Your task to perform on an android device: Open Google Chrome Image 0: 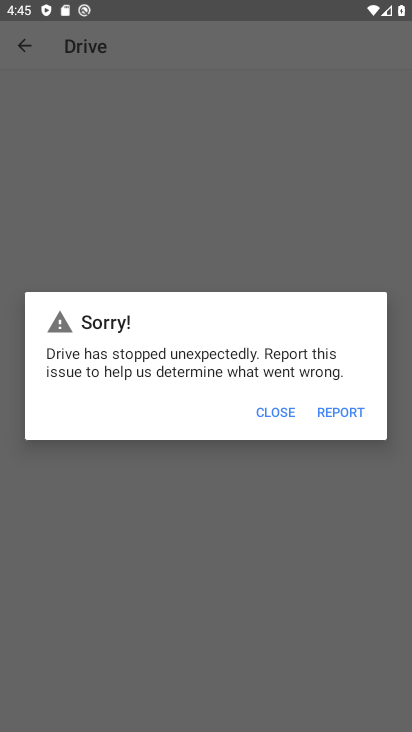
Step 0: click (234, 404)
Your task to perform on an android device: Open Google Chrome Image 1: 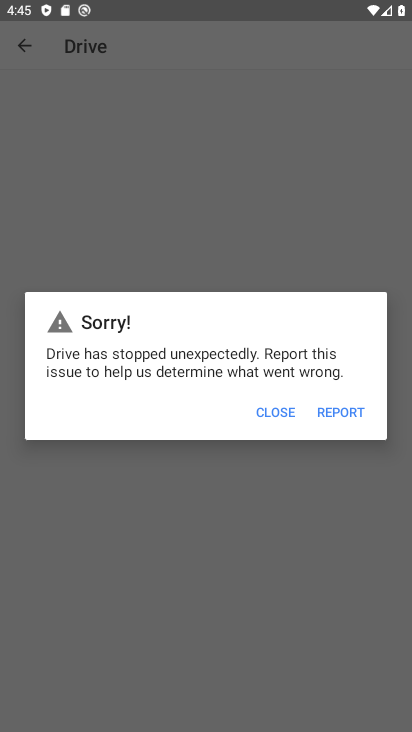
Step 1: click (234, 404)
Your task to perform on an android device: Open Google Chrome Image 2: 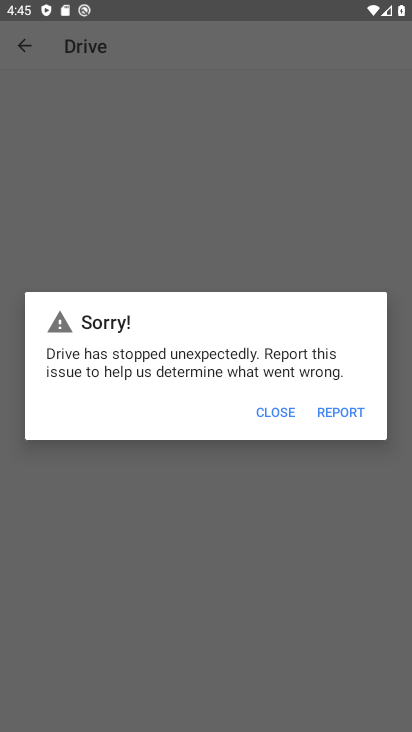
Step 2: click (280, 412)
Your task to perform on an android device: Open Google Chrome Image 3: 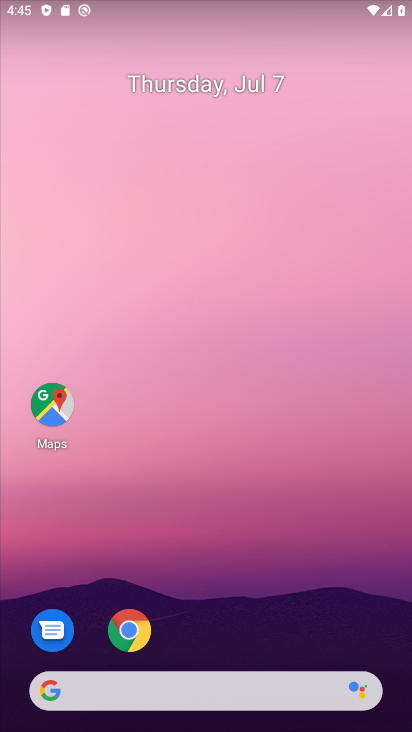
Step 3: drag from (227, 604) to (194, 185)
Your task to perform on an android device: Open Google Chrome Image 4: 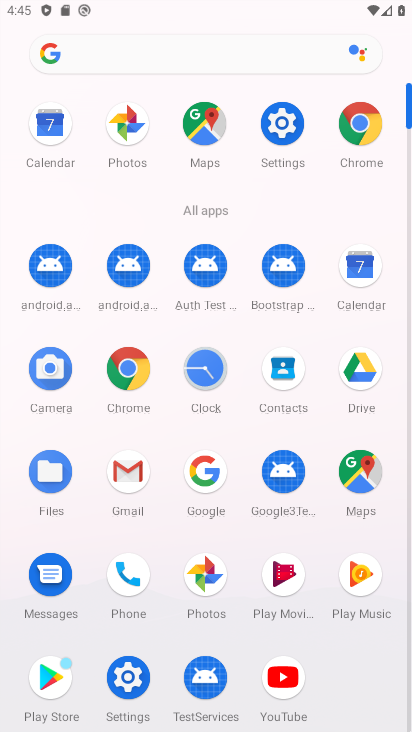
Step 4: click (347, 116)
Your task to perform on an android device: Open Google Chrome Image 5: 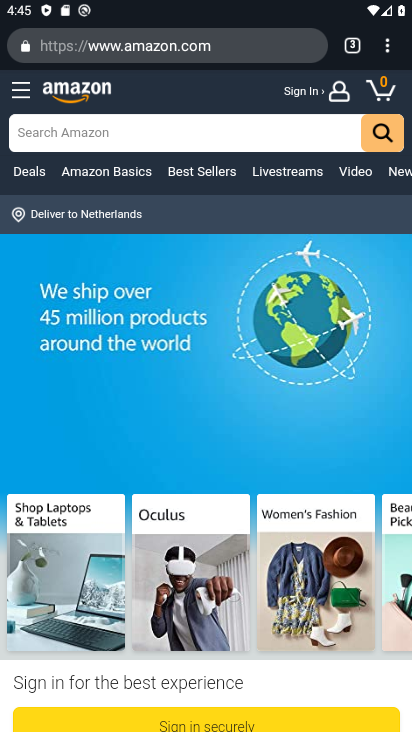
Step 5: drag from (376, 48) to (218, 95)
Your task to perform on an android device: Open Google Chrome Image 6: 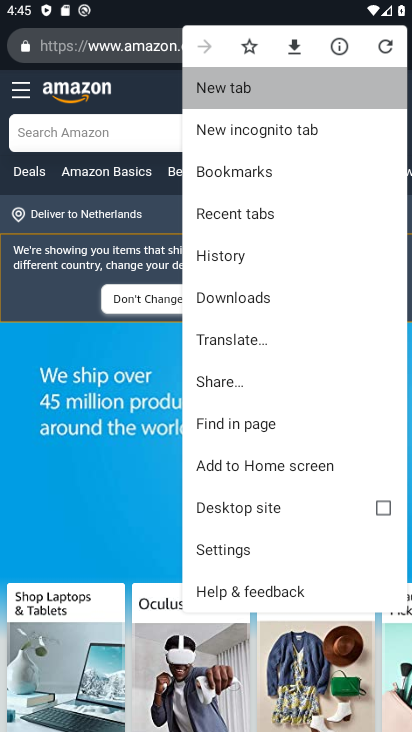
Step 6: click (220, 93)
Your task to perform on an android device: Open Google Chrome Image 7: 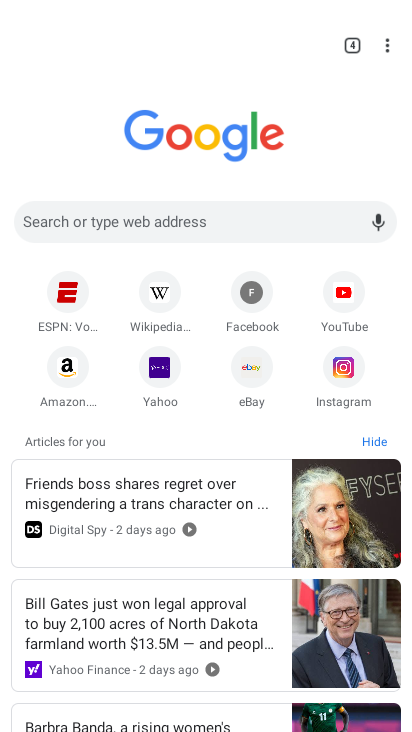
Step 7: task complete